Your task to perform on an android device: check android version Image 0: 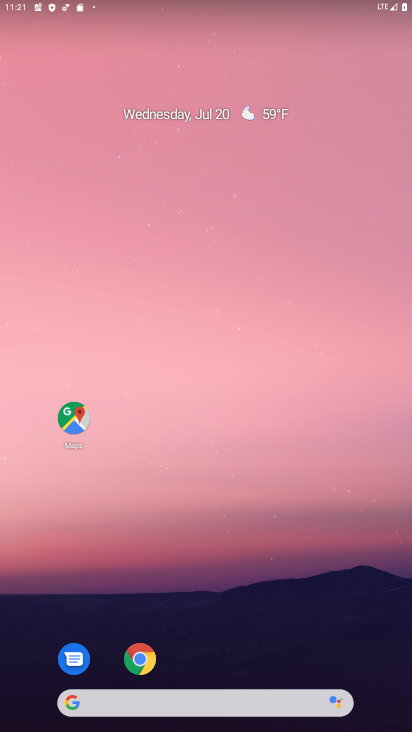
Step 0: drag from (198, 724) to (196, 226)
Your task to perform on an android device: check android version Image 1: 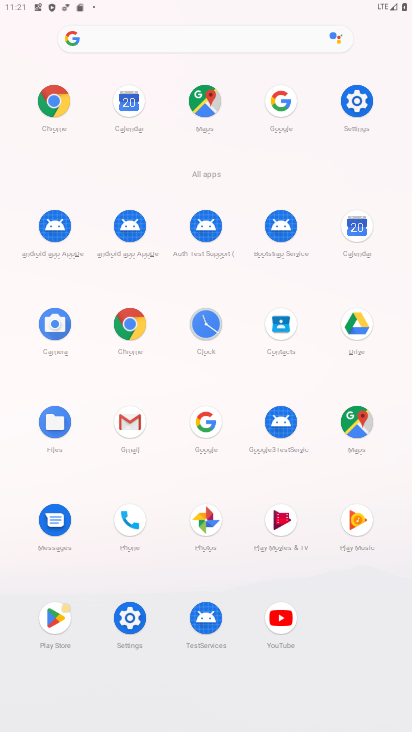
Step 1: click (358, 96)
Your task to perform on an android device: check android version Image 2: 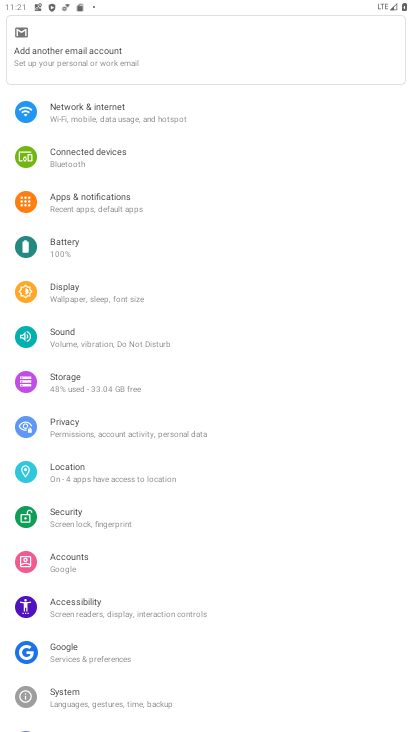
Step 2: drag from (70, 684) to (68, 397)
Your task to perform on an android device: check android version Image 3: 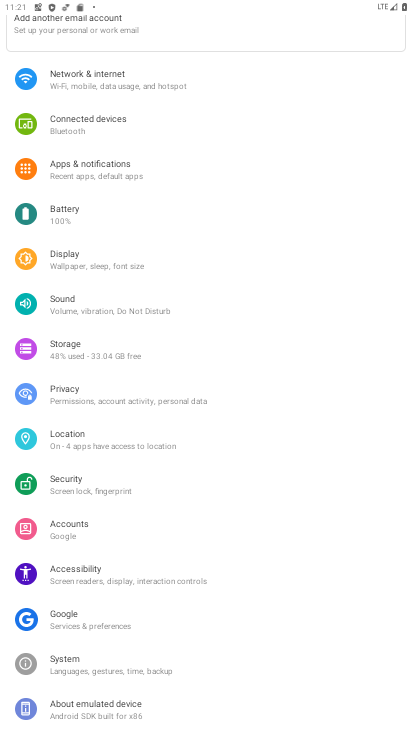
Step 3: click (70, 699)
Your task to perform on an android device: check android version Image 4: 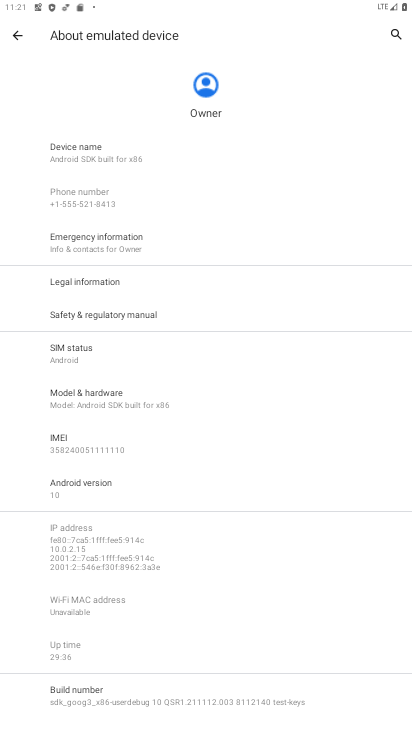
Step 4: click (76, 478)
Your task to perform on an android device: check android version Image 5: 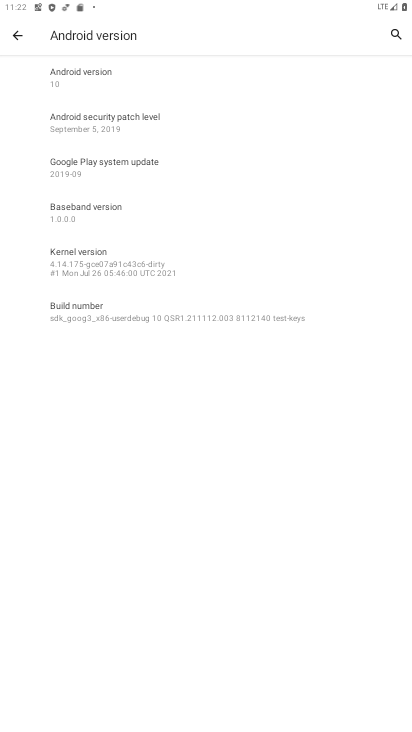
Step 5: task complete